Your task to perform on an android device: Open ESPN.com Image 0: 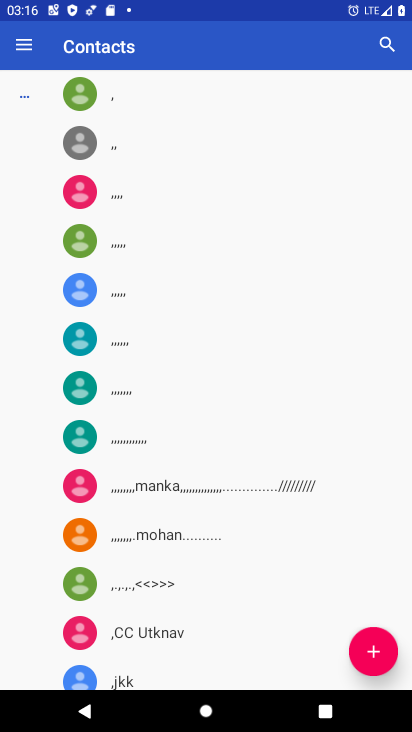
Step 0: press home button
Your task to perform on an android device: Open ESPN.com Image 1: 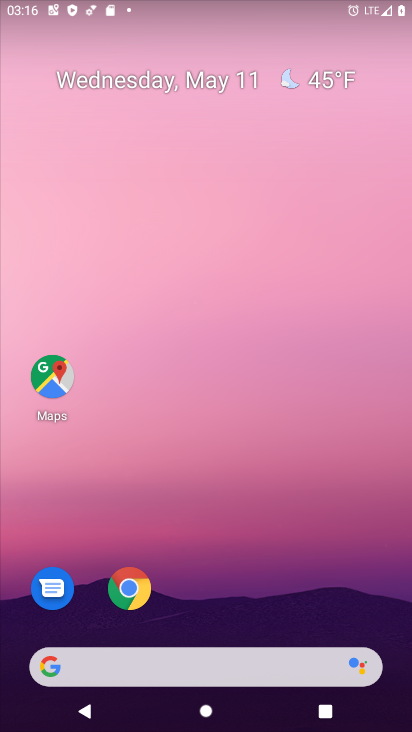
Step 1: click (148, 592)
Your task to perform on an android device: Open ESPN.com Image 2: 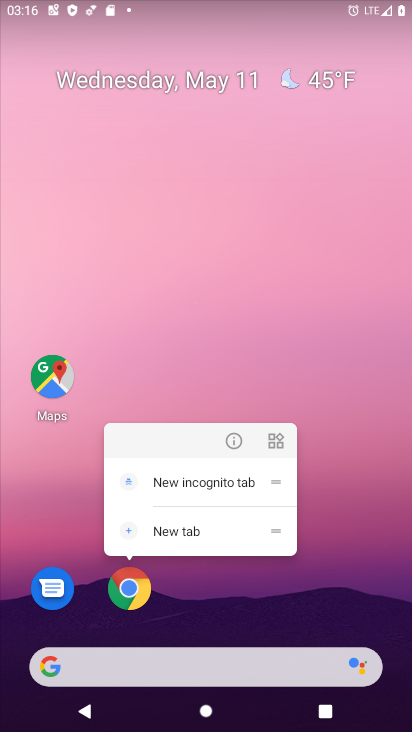
Step 2: click (140, 573)
Your task to perform on an android device: Open ESPN.com Image 3: 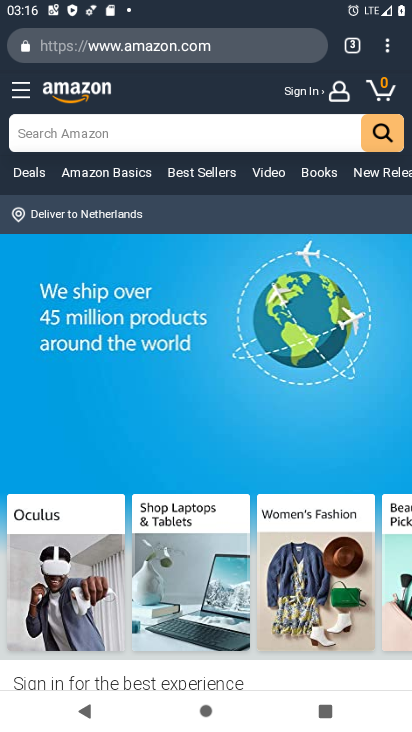
Step 3: click (362, 46)
Your task to perform on an android device: Open ESPN.com Image 4: 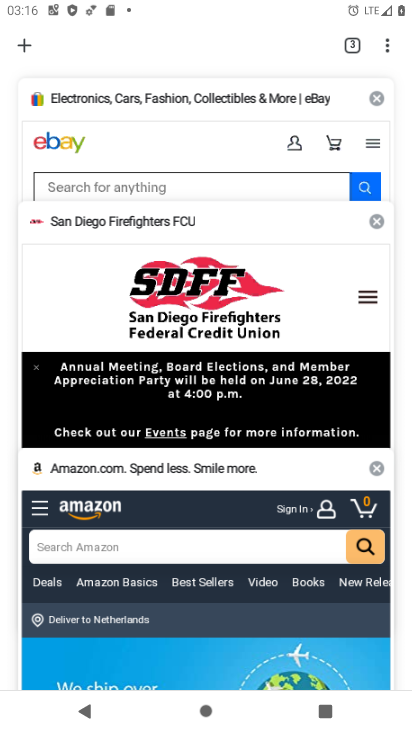
Step 4: click (21, 43)
Your task to perform on an android device: Open ESPN.com Image 5: 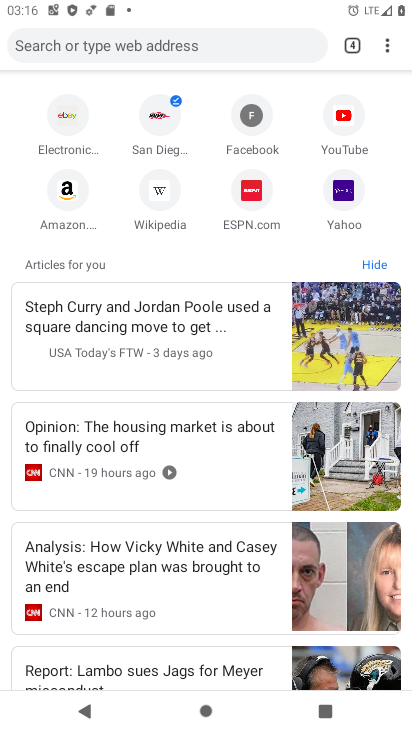
Step 5: click (236, 200)
Your task to perform on an android device: Open ESPN.com Image 6: 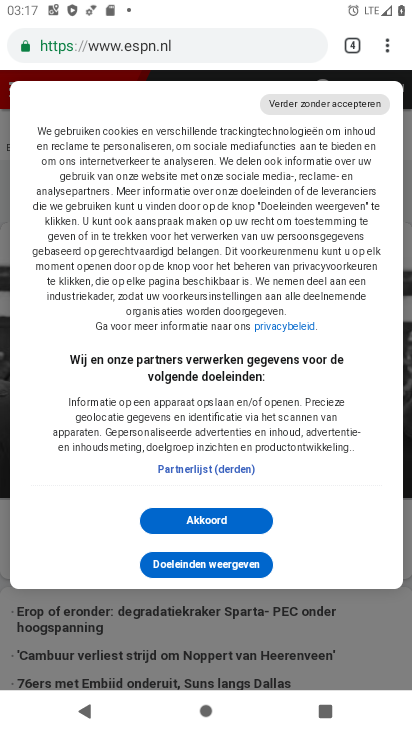
Step 6: task complete